Your task to perform on an android device: toggle translation in the chrome app Image 0: 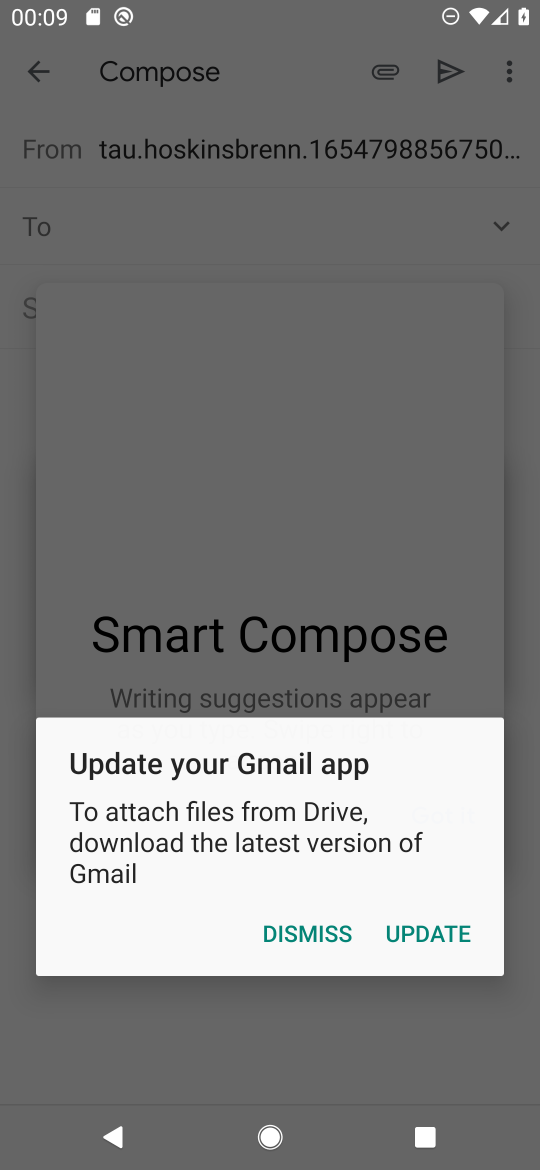
Step 0: press home button
Your task to perform on an android device: toggle translation in the chrome app Image 1: 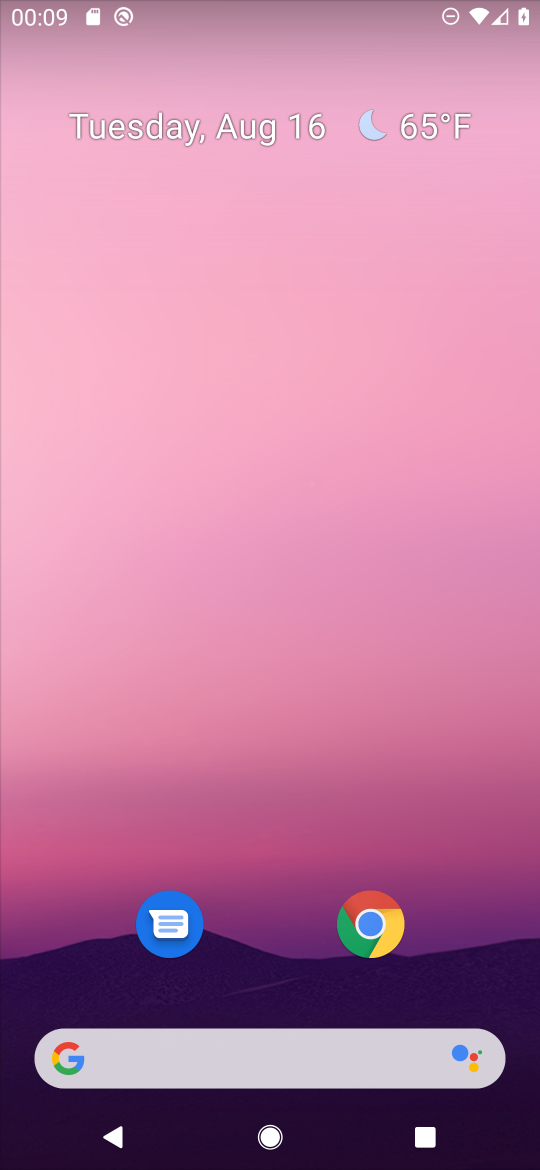
Step 1: click (360, 931)
Your task to perform on an android device: toggle translation in the chrome app Image 2: 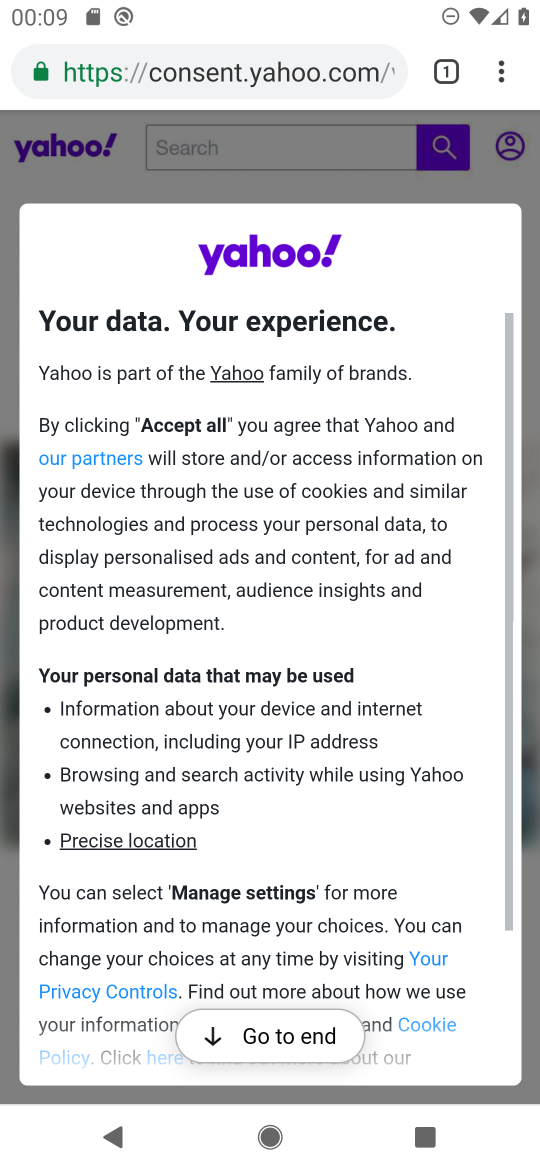
Step 2: click (507, 52)
Your task to perform on an android device: toggle translation in the chrome app Image 3: 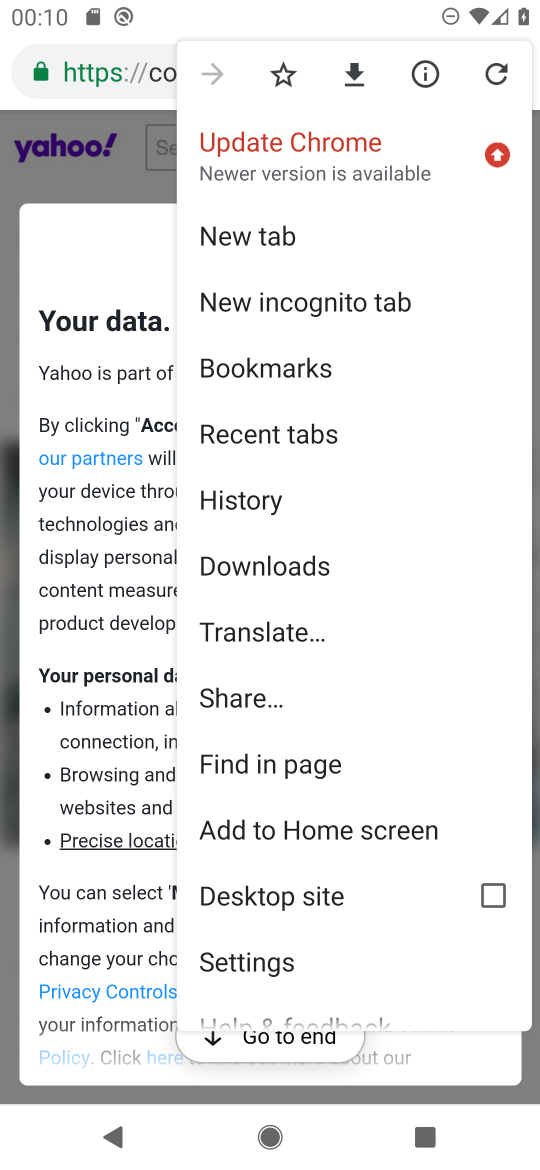
Step 3: click (290, 951)
Your task to perform on an android device: toggle translation in the chrome app Image 4: 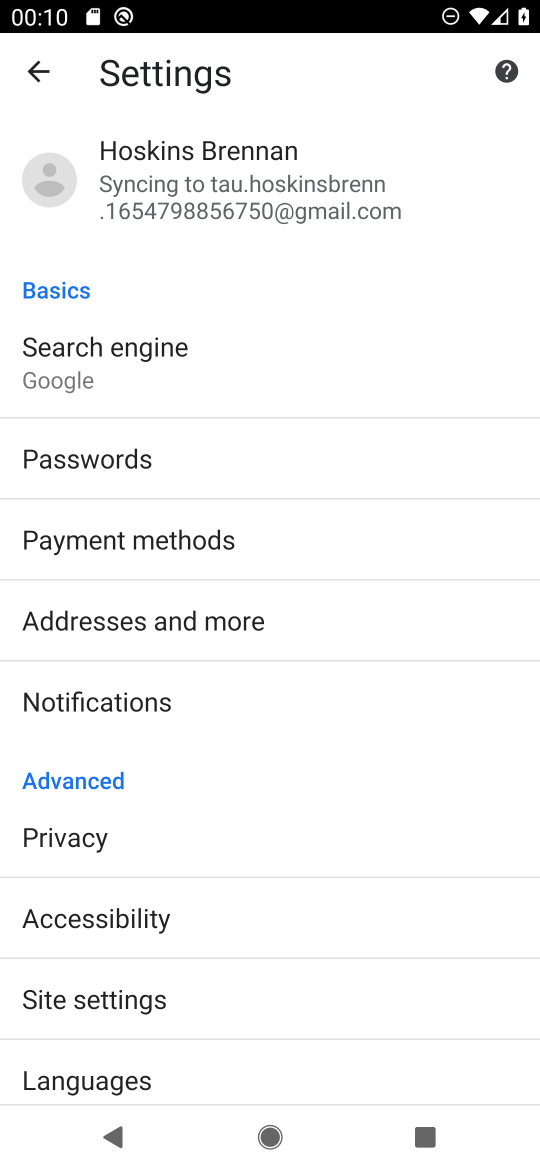
Step 4: click (100, 1057)
Your task to perform on an android device: toggle translation in the chrome app Image 5: 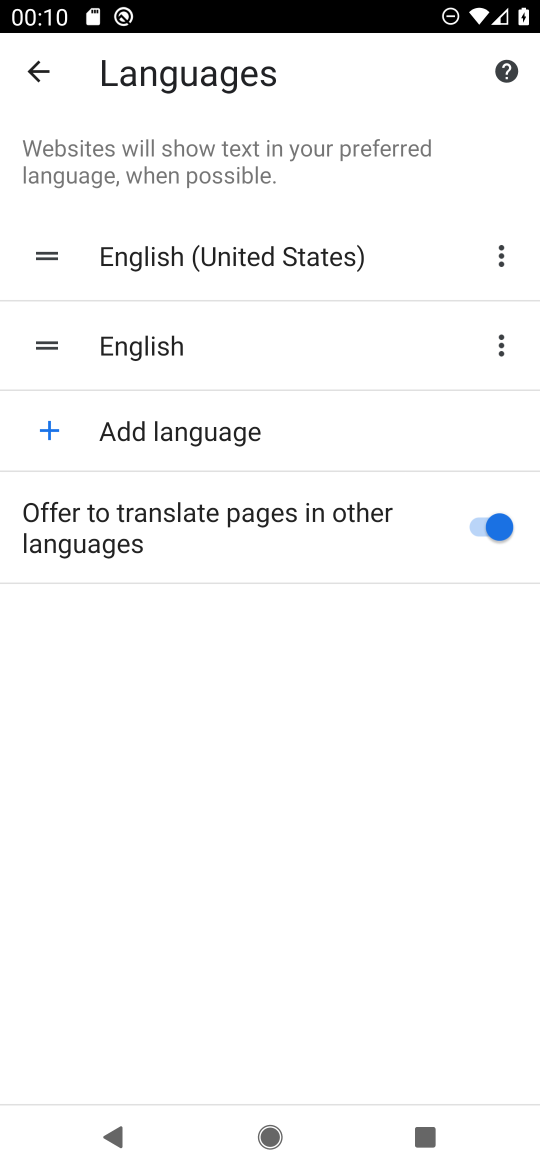
Step 5: click (470, 531)
Your task to perform on an android device: toggle translation in the chrome app Image 6: 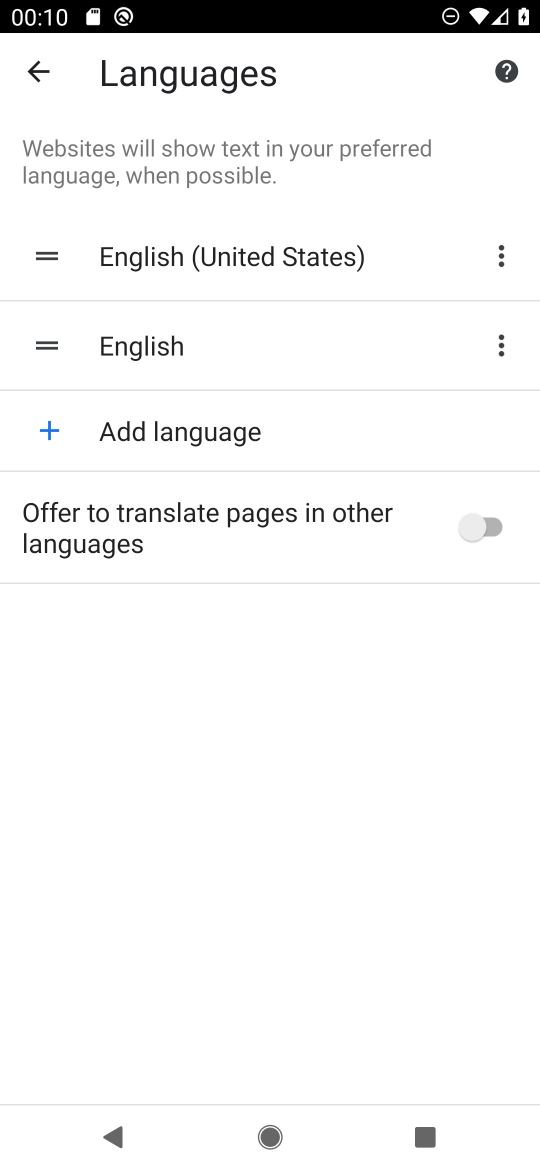
Step 6: task complete